Your task to perform on an android device: turn vacation reply on in the gmail app Image 0: 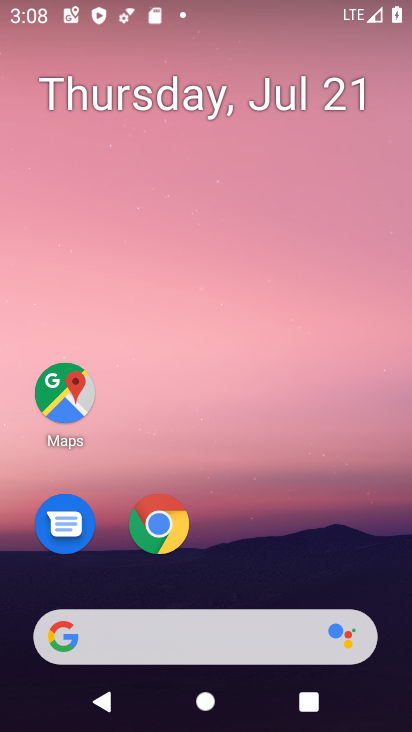
Step 0: drag from (247, 560) to (284, 42)
Your task to perform on an android device: turn vacation reply on in the gmail app Image 1: 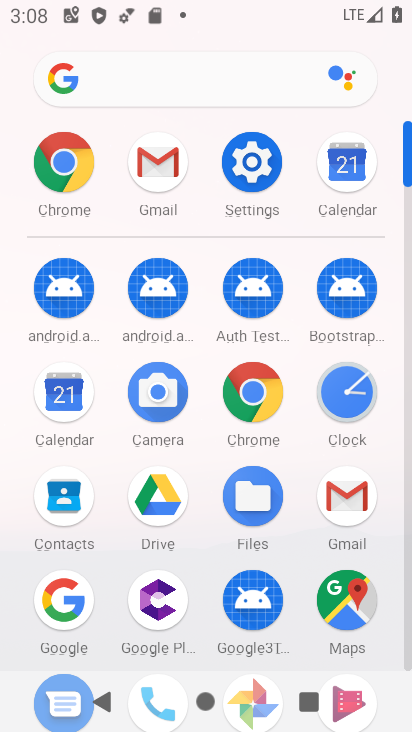
Step 1: click (167, 166)
Your task to perform on an android device: turn vacation reply on in the gmail app Image 2: 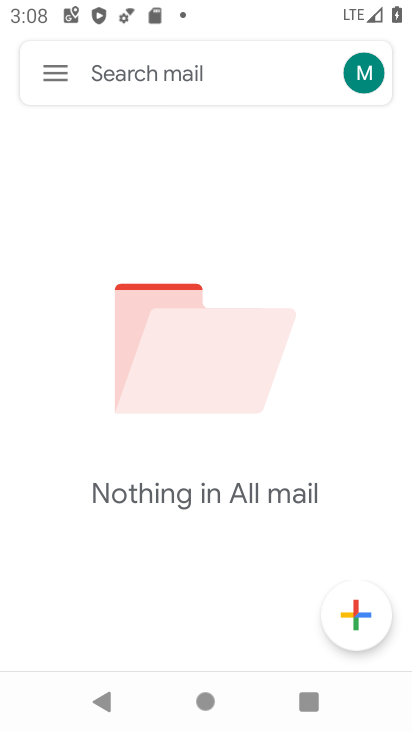
Step 2: click (61, 75)
Your task to perform on an android device: turn vacation reply on in the gmail app Image 3: 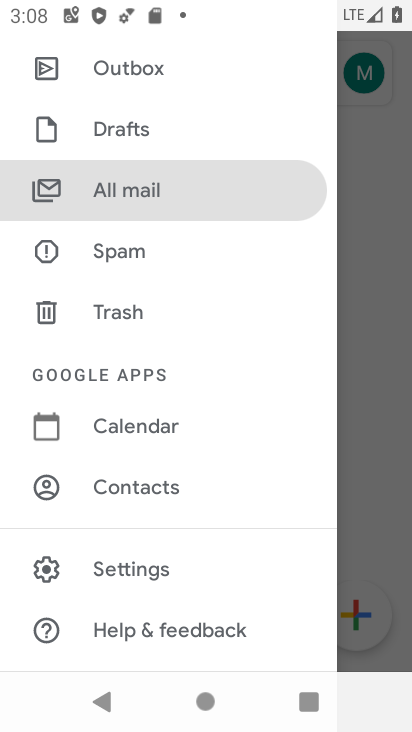
Step 3: click (130, 557)
Your task to perform on an android device: turn vacation reply on in the gmail app Image 4: 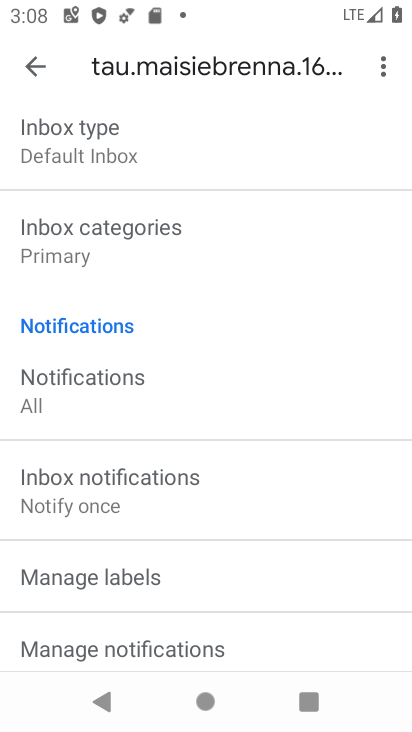
Step 4: drag from (251, 574) to (248, 14)
Your task to perform on an android device: turn vacation reply on in the gmail app Image 5: 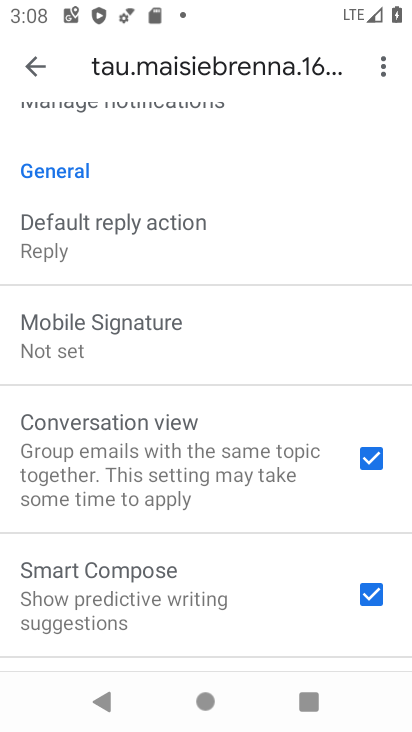
Step 5: drag from (238, 507) to (255, 136)
Your task to perform on an android device: turn vacation reply on in the gmail app Image 6: 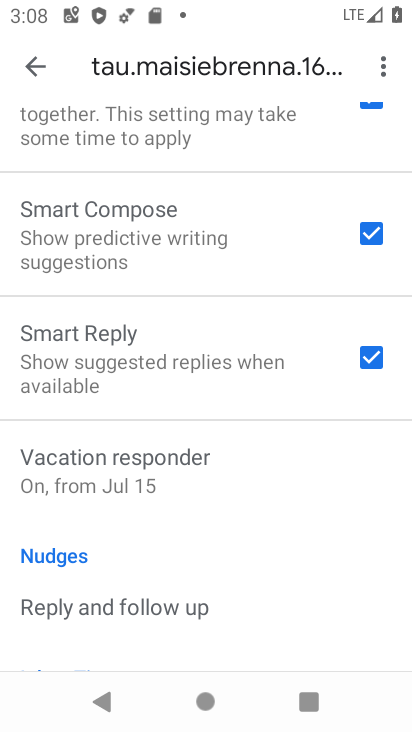
Step 6: click (240, 471)
Your task to perform on an android device: turn vacation reply on in the gmail app Image 7: 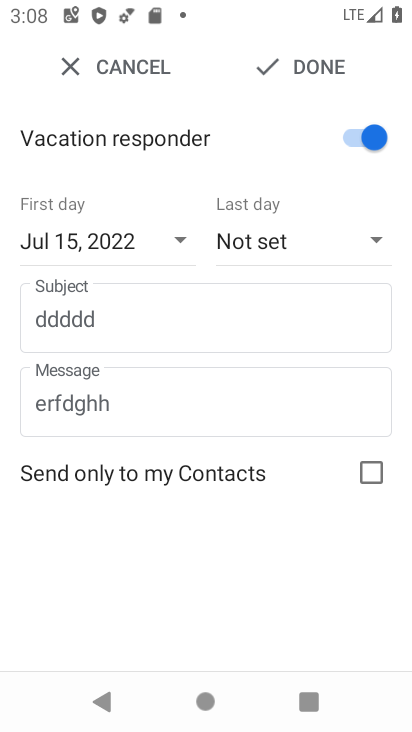
Step 7: task complete